Your task to perform on an android device: turn on javascript in the chrome app Image 0: 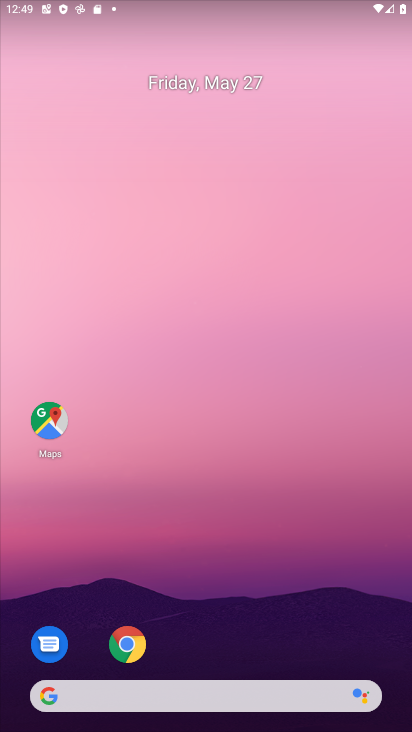
Step 0: drag from (367, 623) to (264, 55)
Your task to perform on an android device: turn on javascript in the chrome app Image 1: 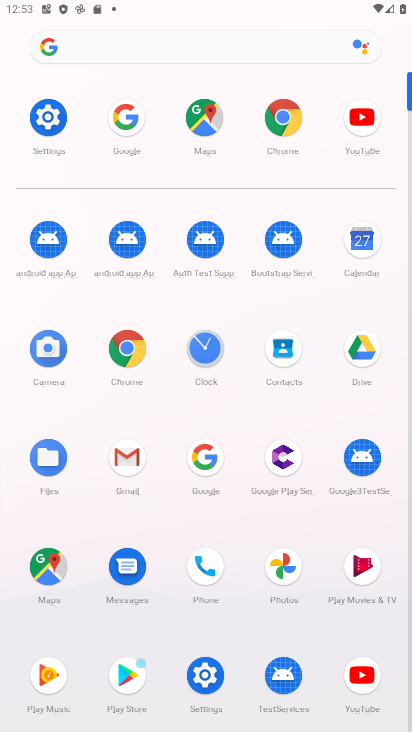
Step 1: click (134, 359)
Your task to perform on an android device: turn on javascript in the chrome app Image 2: 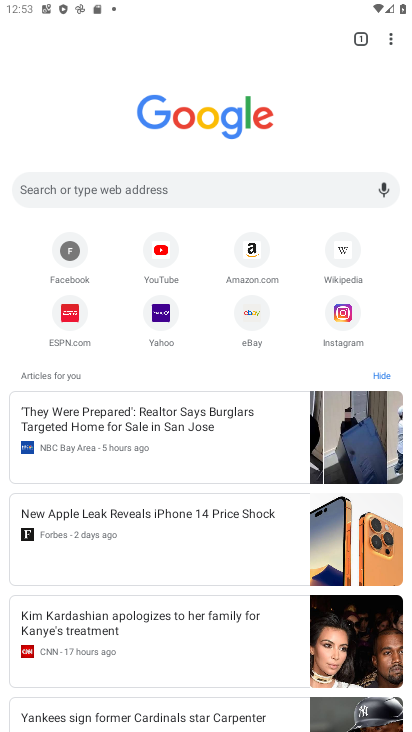
Step 2: click (405, 45)
Your task to perform on an android device: turn on javascript in the chrome app Image 3: 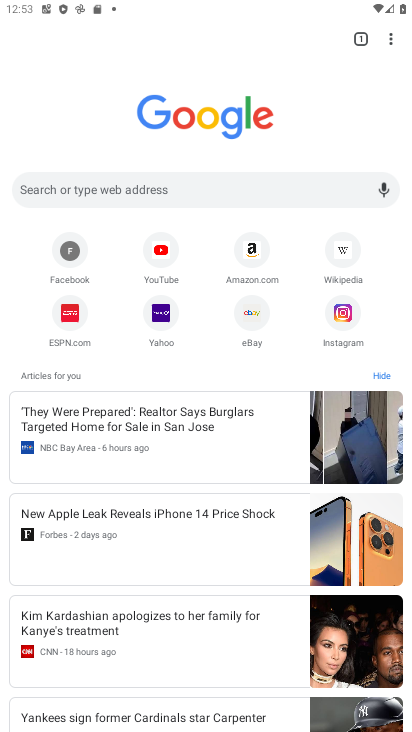
Step 3: click (395, 26)
Your task to perform on an android device: turn on javascript in the chrome app Image 4: 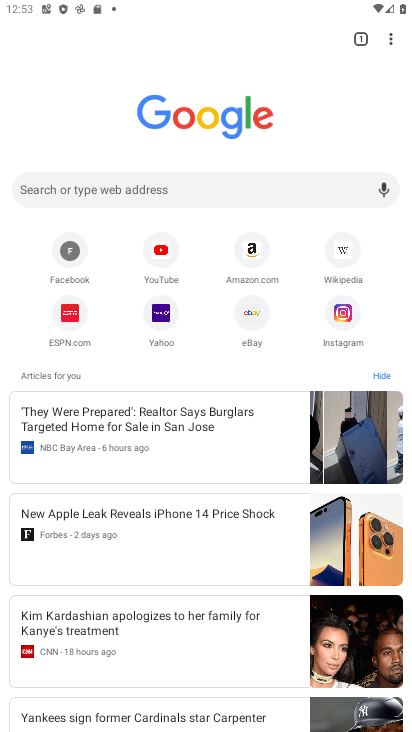
Step 4: click (388, 34)
Your task to perform on an android device: turn on javascript in the chrome app Image 5: 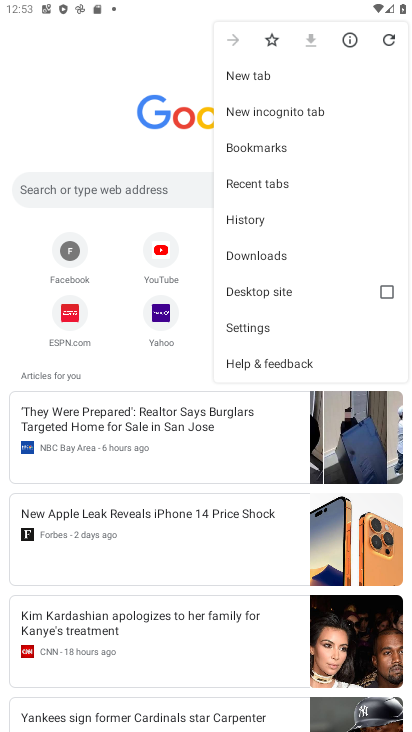
Step 5: click (282, 333)
Your task to perform on an android device: turn on javascript in the chrome app Image 6: 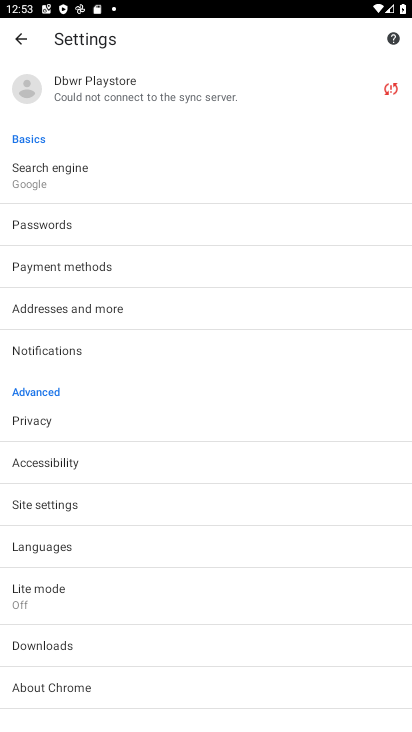
Step 6: click (123, 496)
Your task to perform on an android device: turn on javascript in the chrome app Image 7: 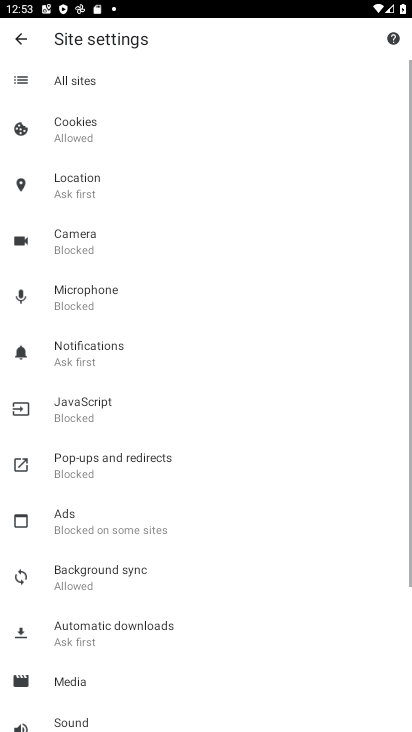
Step 7: click (127, 411)
Your task to perform on an android device: turn on javascript in the chrome app Image 8: 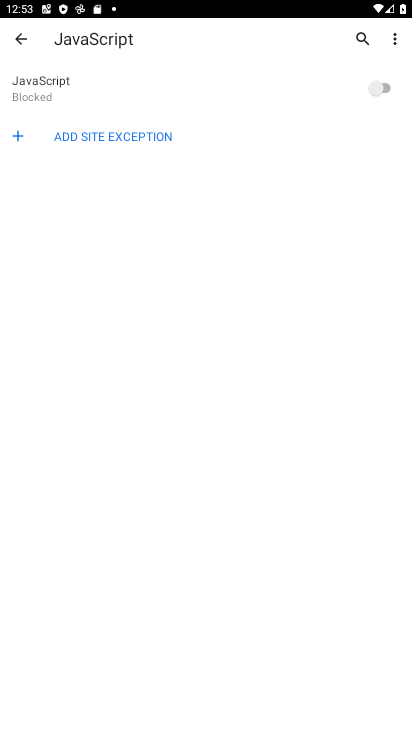
Step 8: click (376, 72)
Your task to perform on an android device: turn on javascript in the chrome app Image 9: 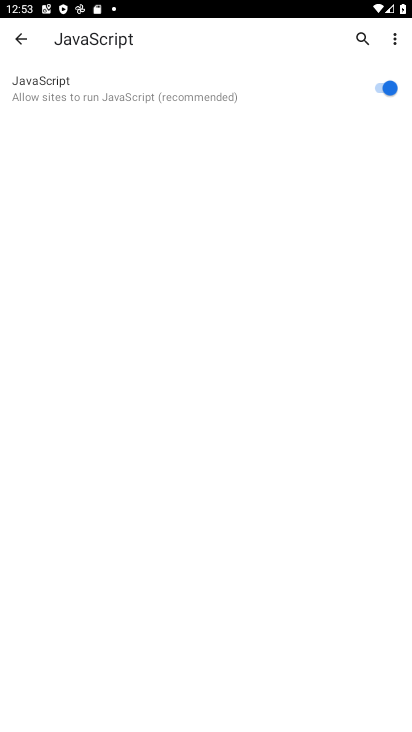
Step 9: task complete